Your task to perform on an android device: allow cookies in the chrome app Image 0: 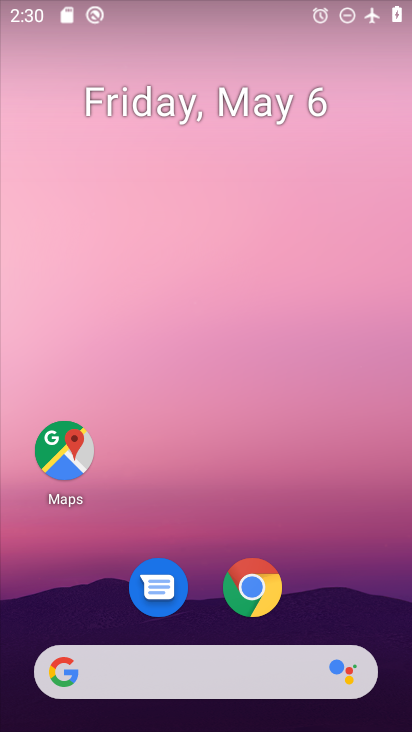
Step 0: click (264, 589)
Your task to perform on an android device: allow cookies in the chrome app Image 1: 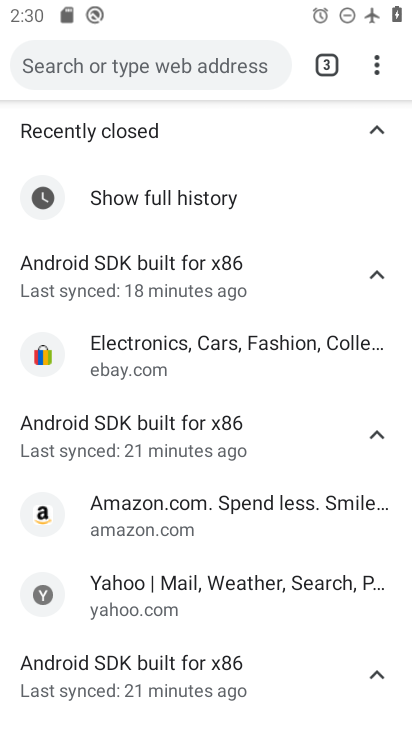
Step 1: drag from (371, 64) to (270, 614)
Your task to perform on an android device: allow cookies in the chrome app Image 2: 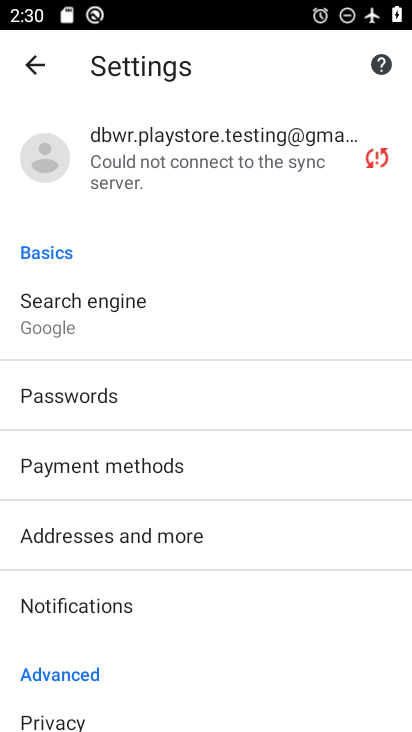
Step 2: drag from (202, 617) to (197, 332)
Your task to perform on an android device: allow cookies in the chrome app Image 3: 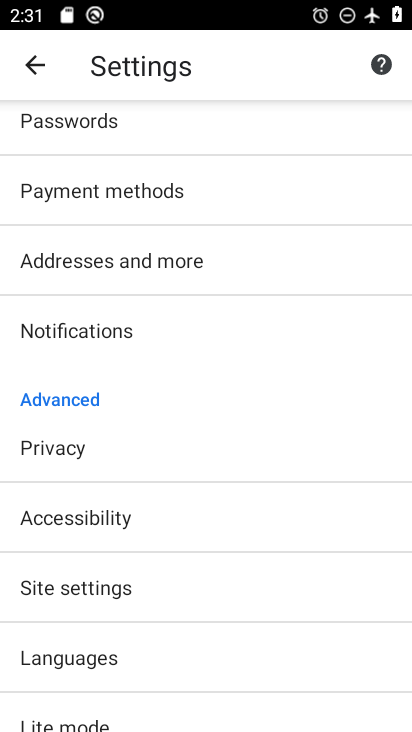
Step 3: click (166, 583)
Your task to perform on an android device: allow cookies in the chrome app Image 4: 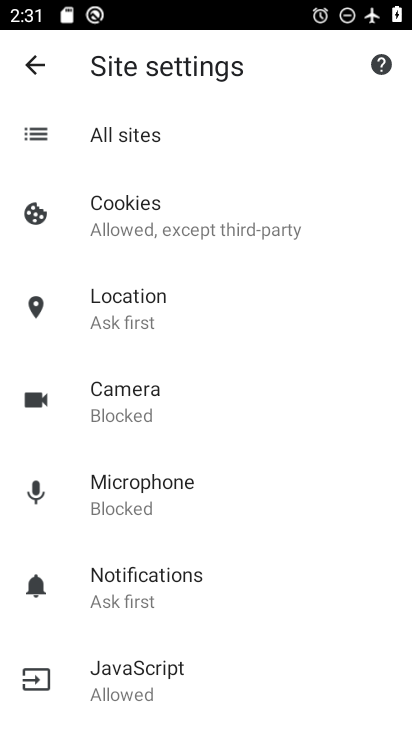
Step 4: task complete